Your task to perform on an android device: Show me popular videos on Youtube Image 0: 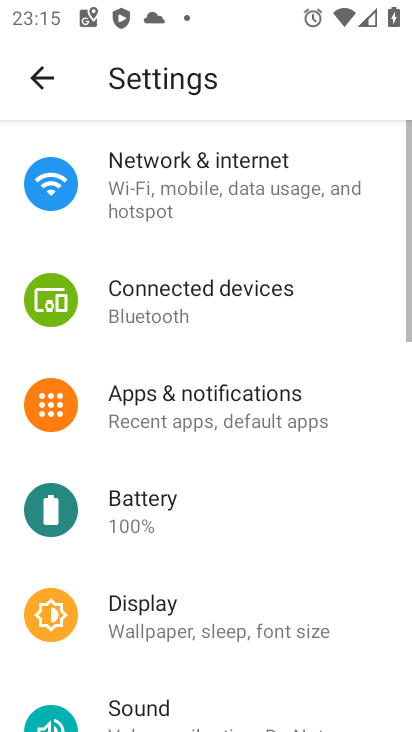
Step 0: press home button
Your task to perform on an android device: Show me popular videos on Youtube Image 1: 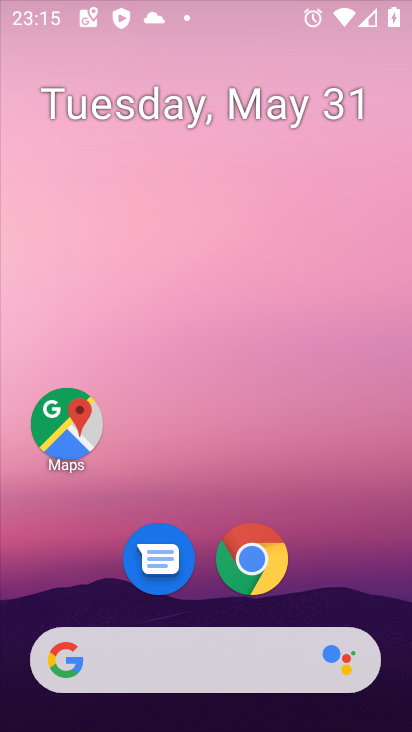
Step 1: drag from (350, 593) to (373, 17)
Your task to perform on an android device: Show me popular videos on Youtube Image 2: 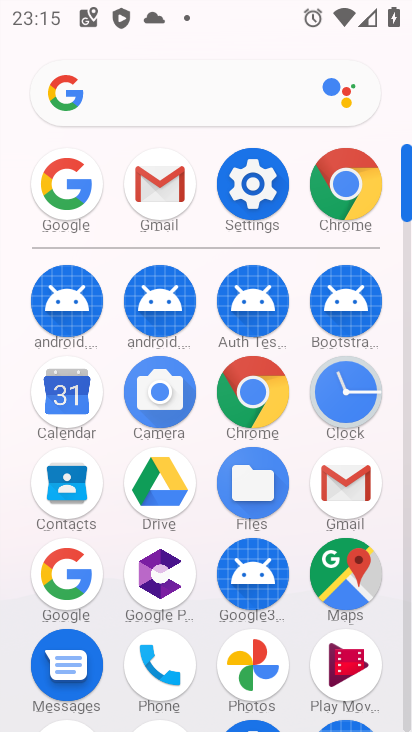
Step 2: drag from (301, 619) to (313, 121)
Your task to perform on an android device: Show me popular videos on Youtube Image 3: 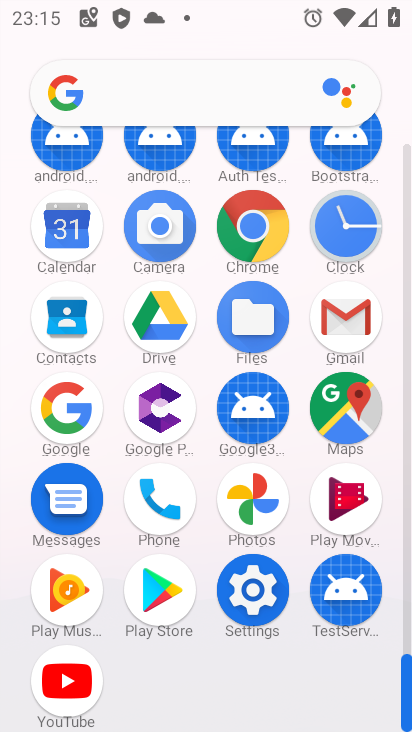
Step 3: click (65, 675)
Your task to perform on an android device: Show me popular videos on Youtube Image 4: 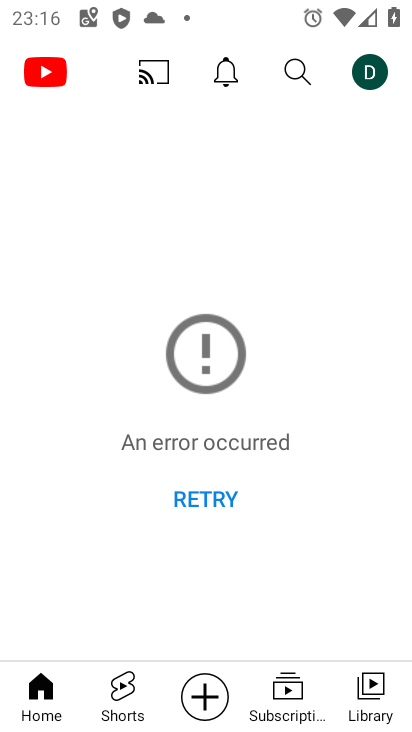
Step 4: task complete